Your task to perform on an android device: move a message to another label in the gmail app Image 0: 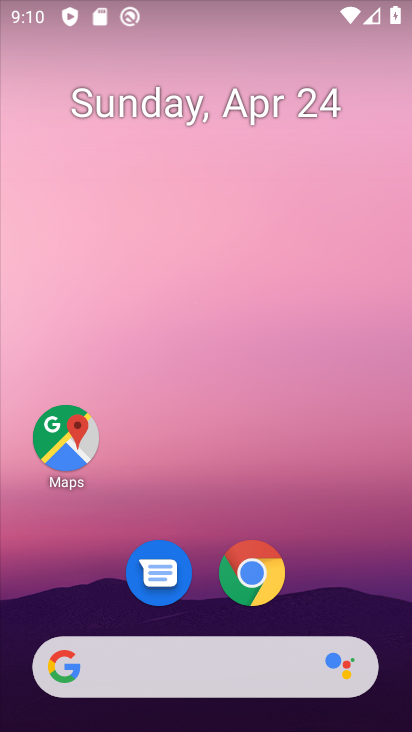
Step 0: drag from (330, 577) to (266, 83)
Your task to perform on an android device: move a message to another label in the gmail app Image 1: 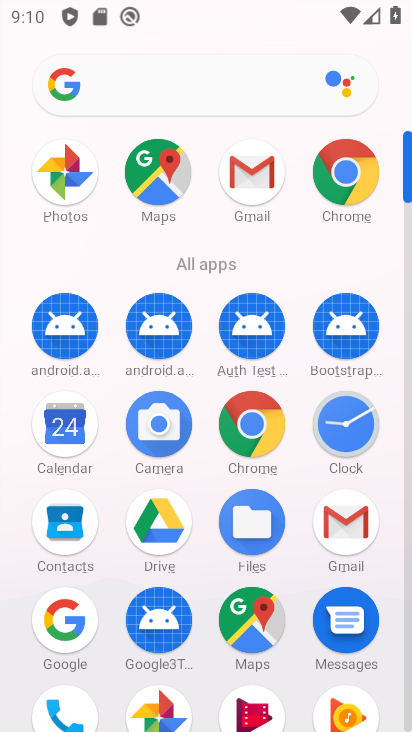
Step 1: click (340, 530)
Your task to perform on an android device: move a message to another label in the gmail app Image 2: 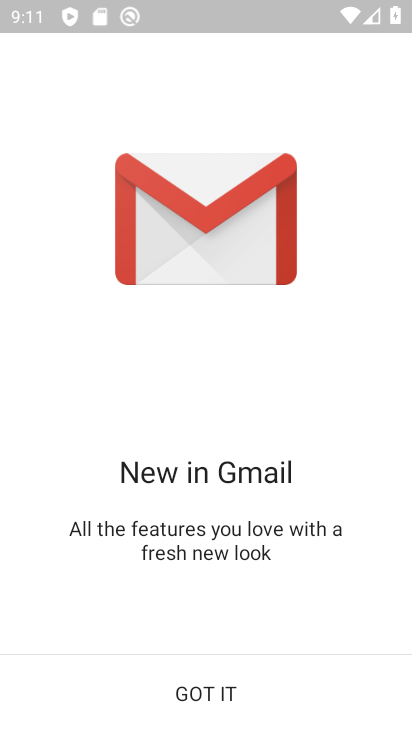
Step 2: click (196, 687)
Your task to perform on an android device: move a message to another label in the gmail app Image 3: 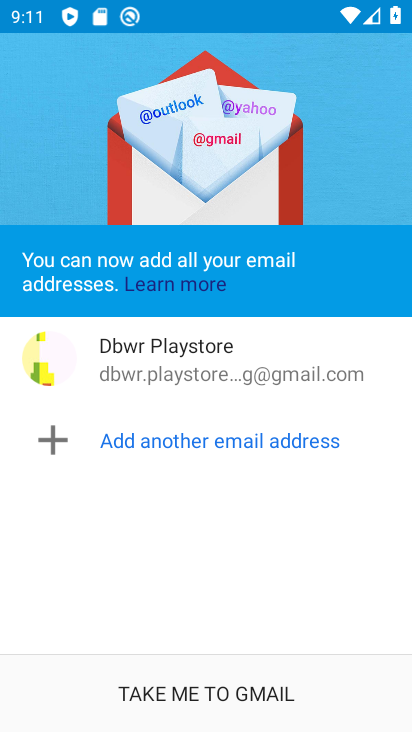
Step 3: click (219, 698)
Your task to perform on an android device: move a message to another label in the gmail app Image 4: 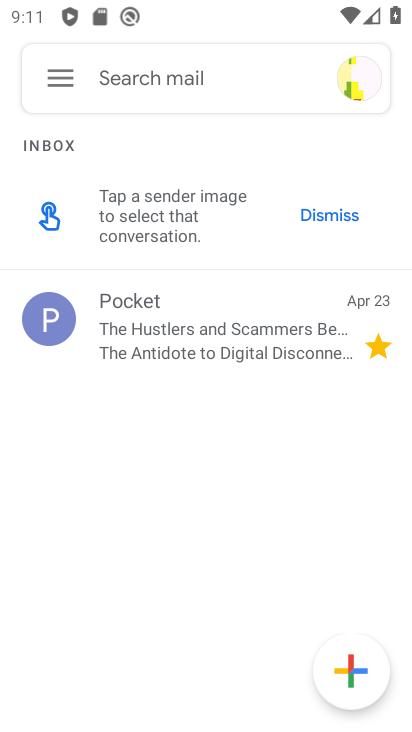
Step 4: click (264, 327)
Your task to perform on an android device: move a message to another label in the gmail app Image 5: 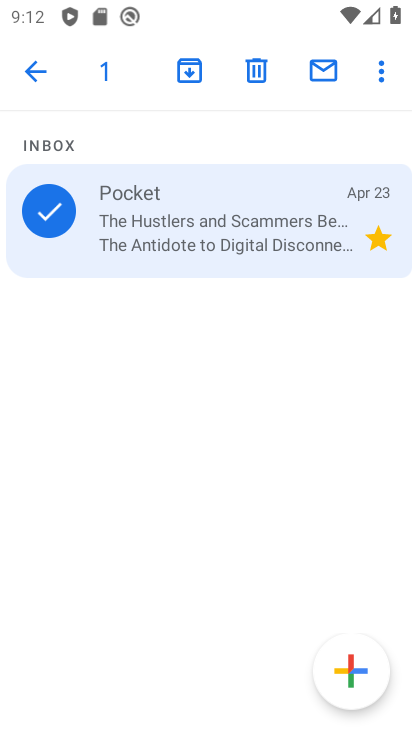
Step 5: click (381, 65)
Your task to perform on an android device: move a message to another label in the gmail app Image 6: 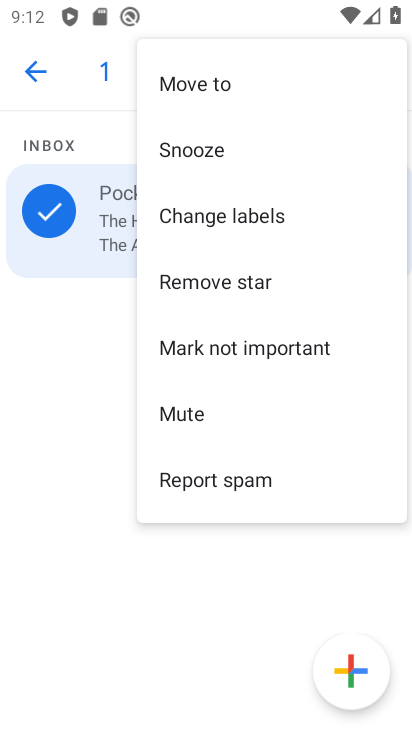
Step 6: click (204, 223)
Your task to perform on an android device: move a message to another label in the gmail app Image 7: 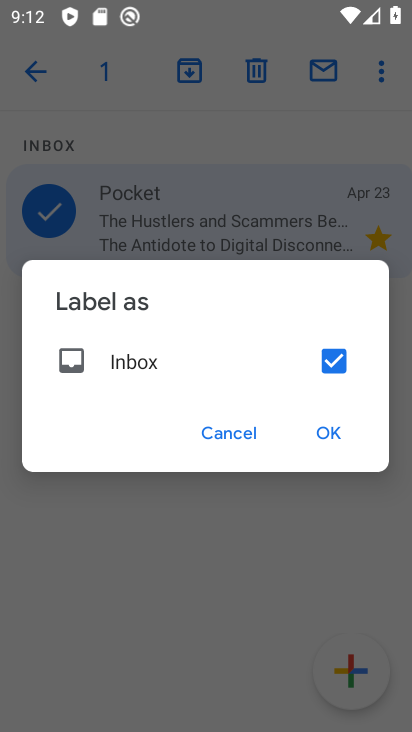
Step 7: click (335, 427)
Your task to perform on an android device: move a message to another label in the gmail app Image 8: 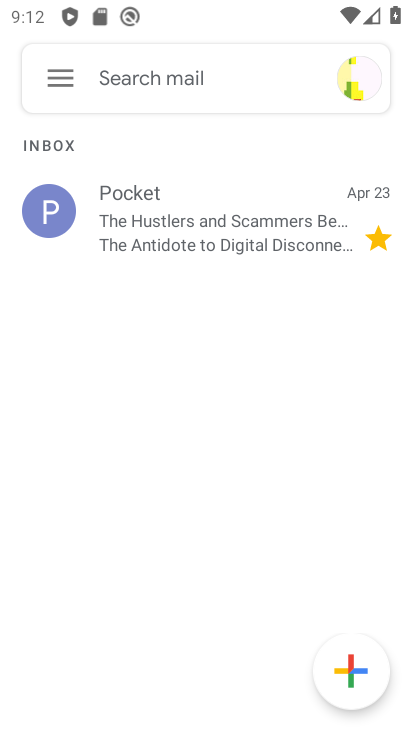
Step 8: task complete